Your task to perform on an android device: Open Google Chrome Image 0: 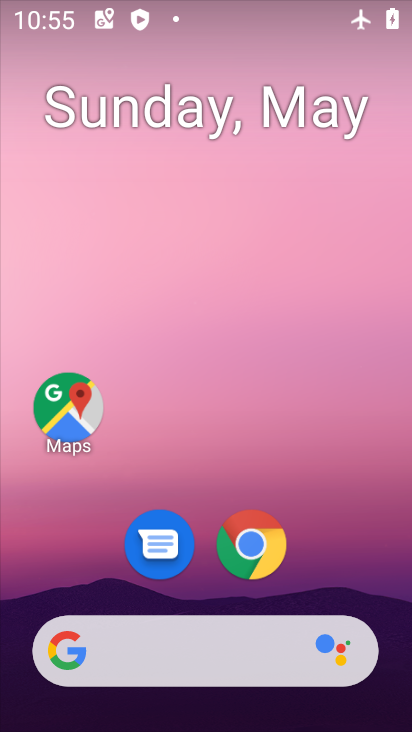
Step 0: click (264, 542)
Your task to perform on an android device: Open Google Chrome Image 1: 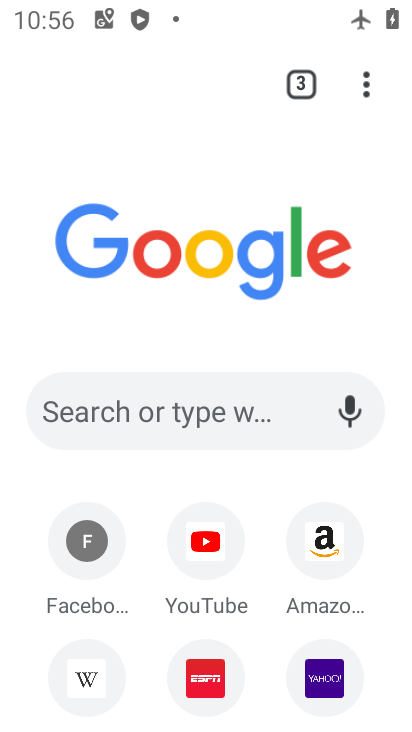
Step 1: task complete